Your task to perform on an android device: install app "Duolingo: language lessons" Image 0: 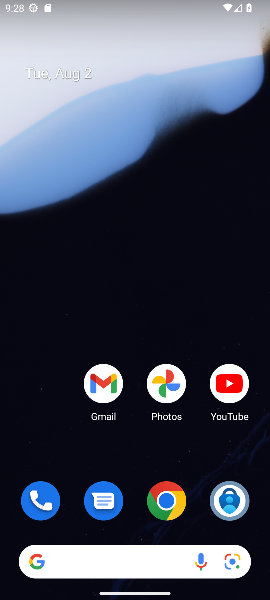
Step 0: drag from (138, 524) to (176, 151)
Your task to perform on an android device: install app "Duolingo: language lessons" Image 1: 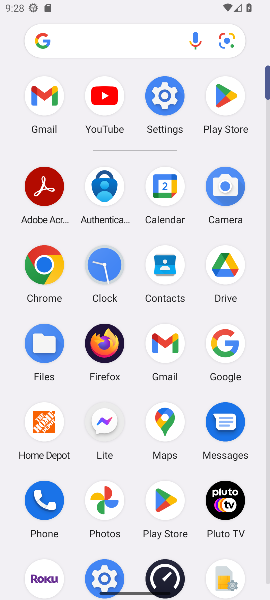
Step 1: click (230, 95)
Your task to perform on an android device: install app "Duolingo: language lessons" Image 2: 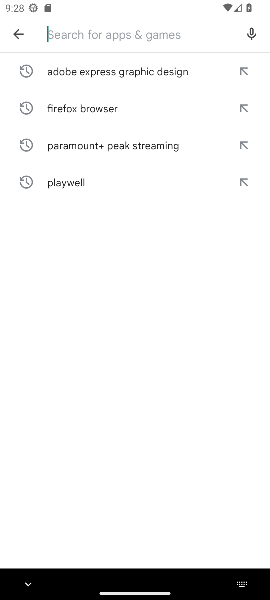
Step 2: click (80, 29)
Your task to perform on an android device: install app "Duolingo: language lessons" Image 3: 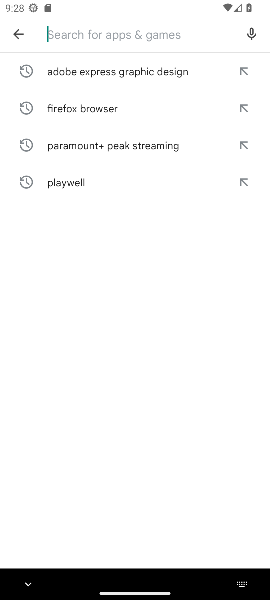
Step 3: type "Duolingo: language lessons"
Your task to perform on an android device: install app "Duolingo: language lessons" Image 4: 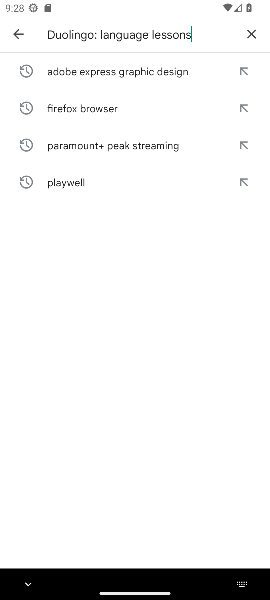
Step 4: type ""
Your task to perform on an android device: install app "Duolingo: language lessons" Image 5: 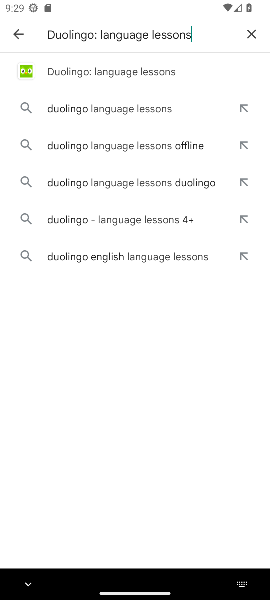
Step 5: click (69, 69)
Your task to perform on an android device: install app "Duolingo: language lessons" Image 6: 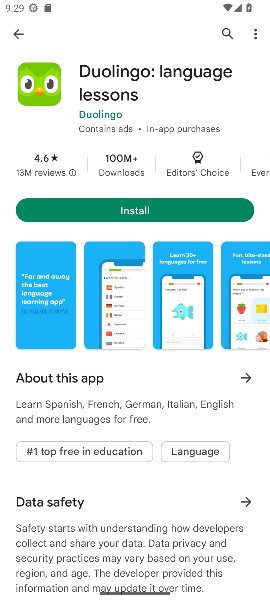
Step 6: task complete